Your task to perform on an android device: Open the phone app and click the voicemail tab. Image 0: 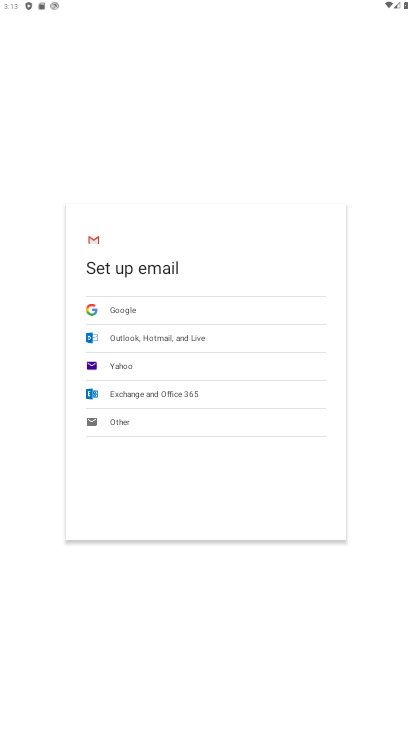
Step 0: press home button
Your task to perform on an android device: Open the phone app and click the voicemail tab. Image 1: 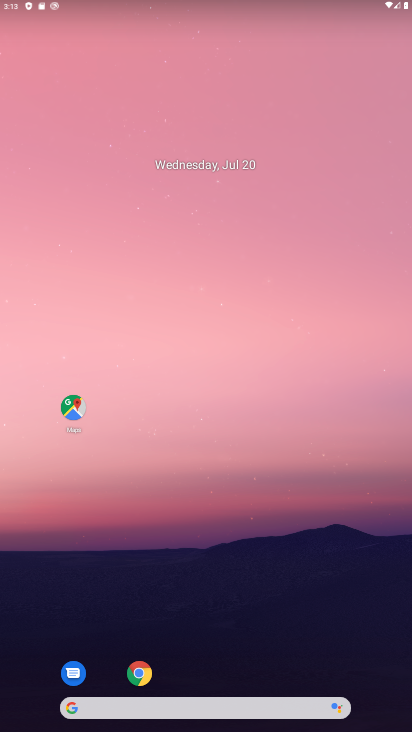
Step 1: drag from (298, 641) to (298, 81)
Your task to perform on an android device: Open the phone app and click the voicemail tab. Image 2: 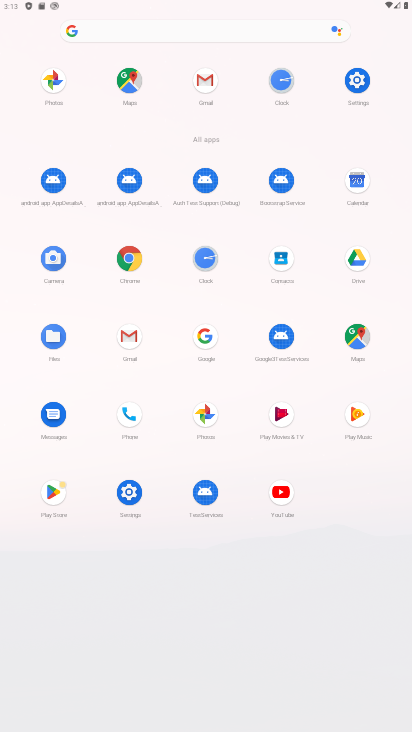
Step 2: click (126, 426)
Your task to perform on an android device: Open the phone app and click the voicemail tab. Image 3: 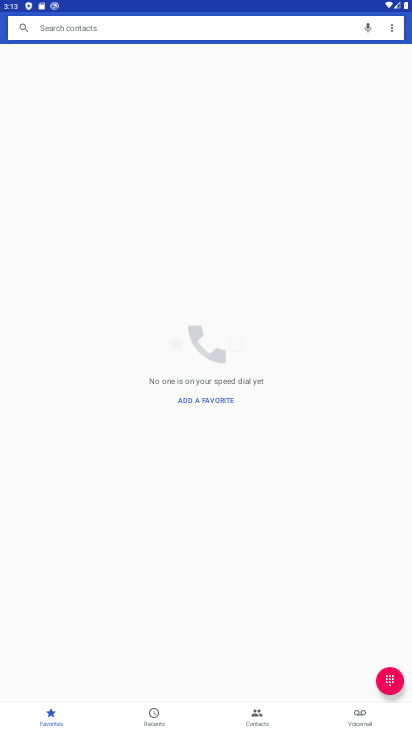
Step 3: click (357, 714)
Your task to perform on an android device: Open the phone app and click the voicemail tab. Image 4: 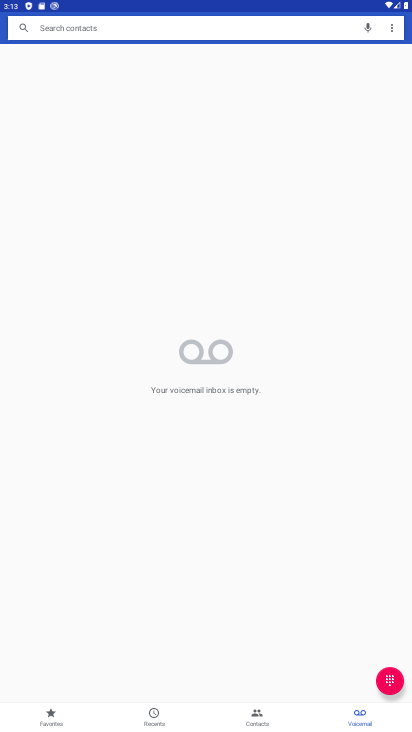
Step 4: task complete